Your task to perform on an android device: open wifi settings Image 0: 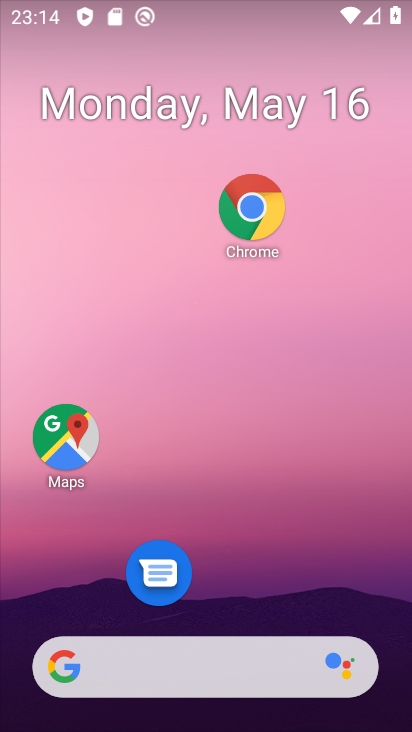
Step 0: drag from (363, 626) to (368, 126)
Your task to perform on an android device: open wifi settings Image 1: 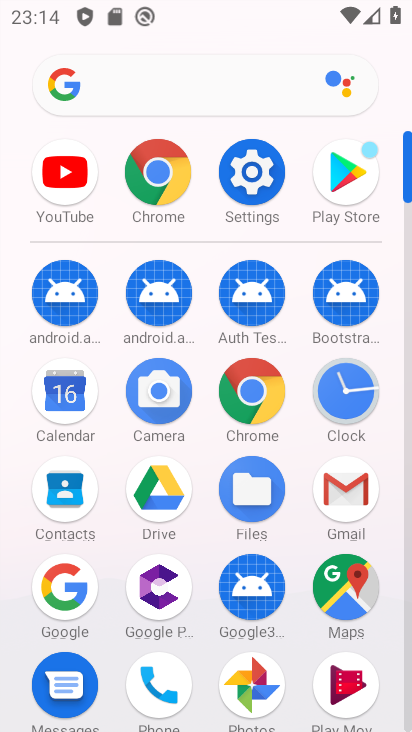
Step 1: click (263, 174)
Your task to perform on an android device: open wifi settings Image 2: 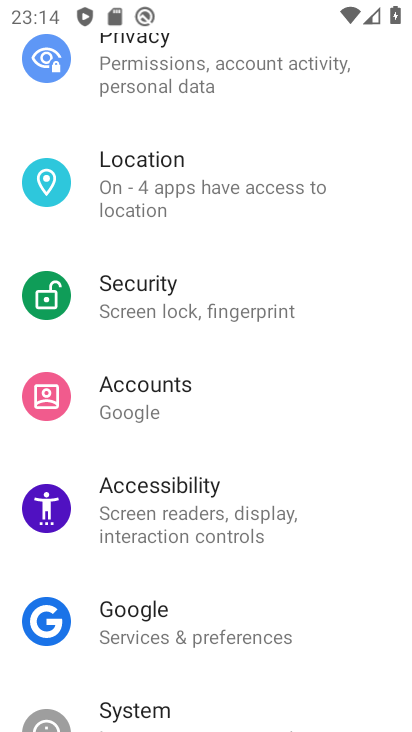
Step 2: drag from (273, 172) to (278, 623)
Your task to perform on an android device: open wifi settings Image 3: 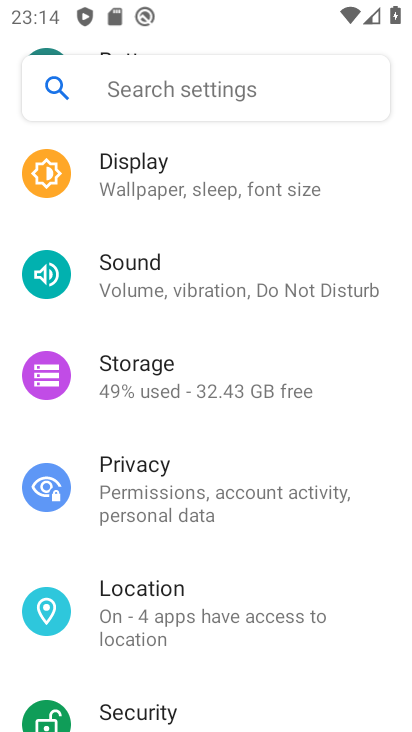
Step 3: drag from (239, 202) to (297, 700)
Your task to perform on an android device: open wifi settings Image 4: 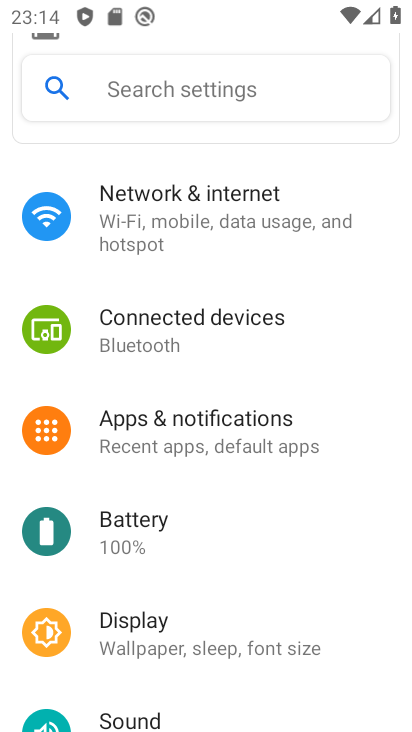
Step 4: click (224, 225)
Your task to perform on an android device: open wifi settings Image 5: 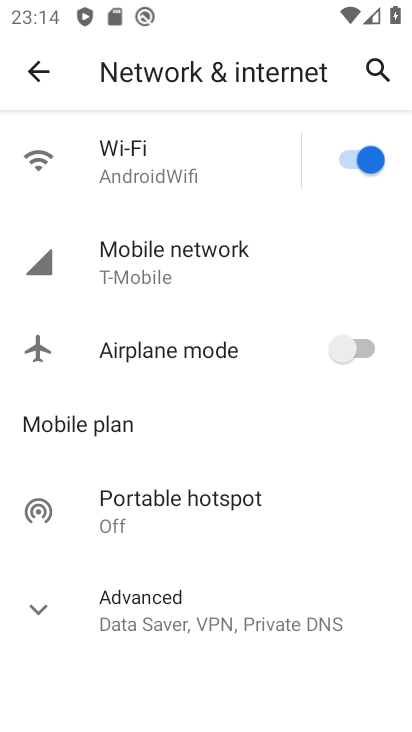
Step 5: click (210, 162)
Your task to perform on an android device: open wifi settings Image 6: 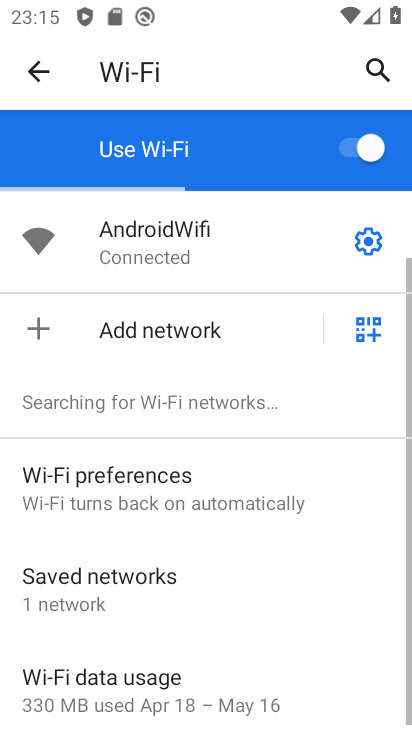
Step 6: click (160, 170)
Your task to perform on an android device: open wifi settings Image 7: 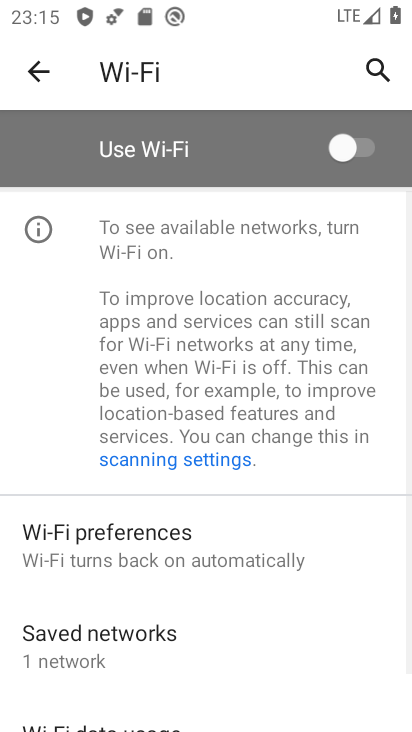
Step 7: click (358, 153)
Your task to perform on an android device: open wifi settings Image 8: 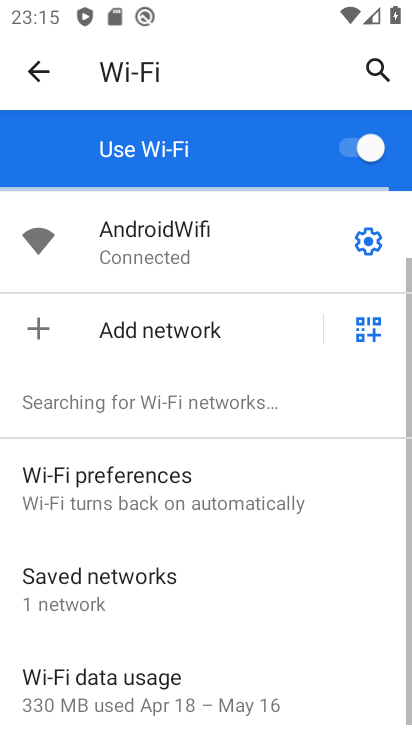
Step 8: task complete